Your task to perform on an android device: change the clock style Image 0: 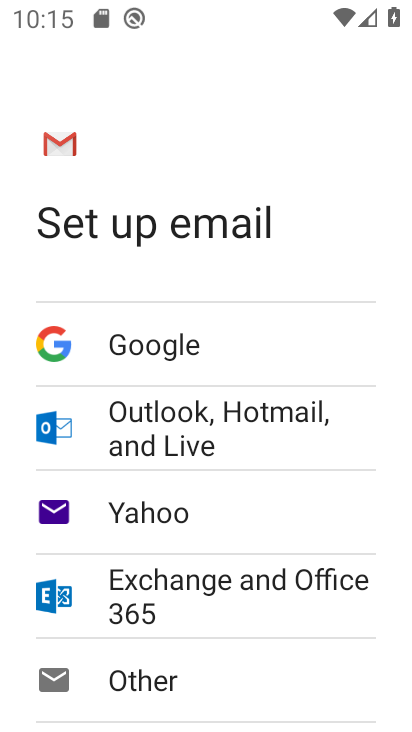
Step 0: press home button
Your task to perform on an android device: change the clock style Image 1: 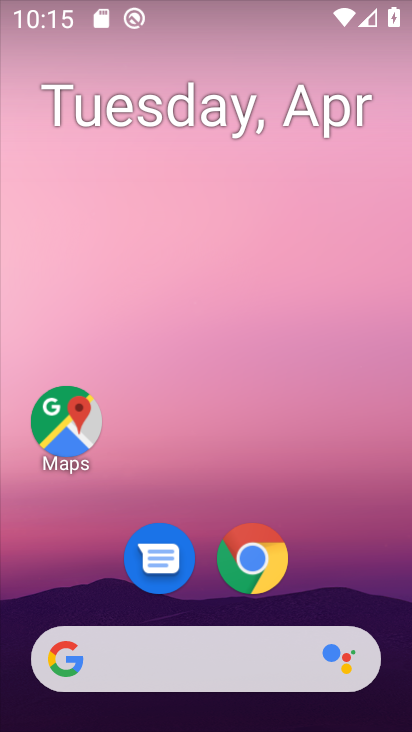
Step 1: drag from (194, 371) to (233, 37)
Your task to perform on an android device: change the clock style Image 2: 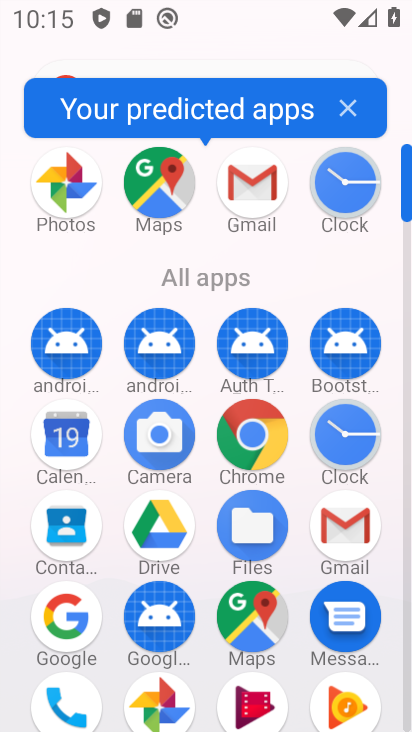
Step 2: click (334, 193)
Your task to perform on an android device: change the clock style Image 3: 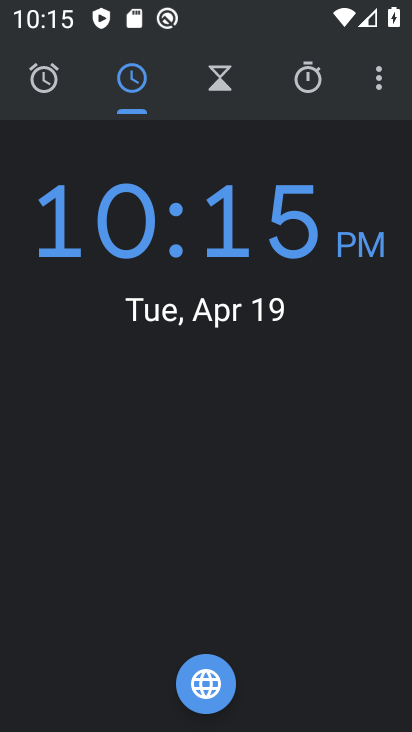
Step 3: click (379, 88)
Your task to perform on an android device: change the clock style Image 4: 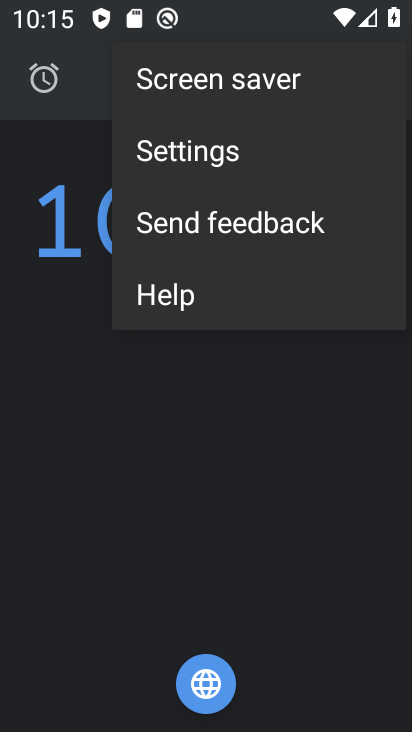
Step 4: click (213, 152)
Your task to perform on an android device: change the clock style Image 5: 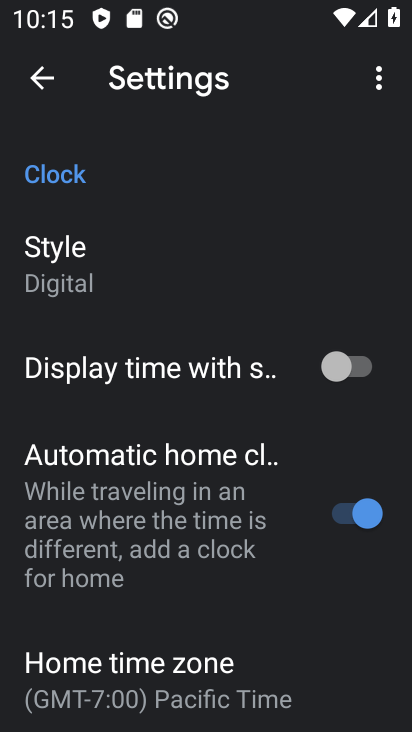
Step 5: click (84, 280)
Your task to perform on an android device: change the clock style Image 6: 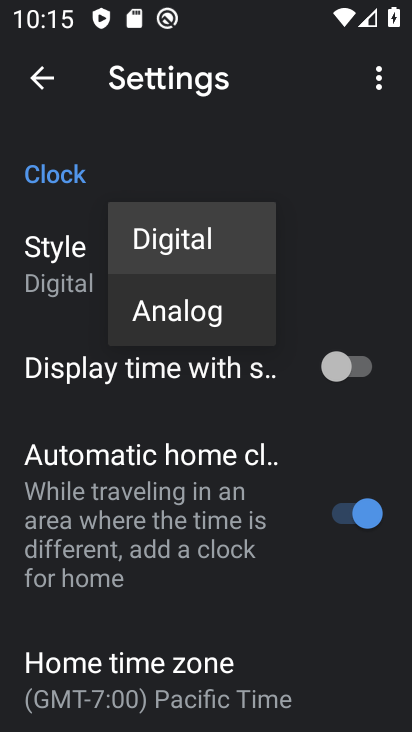
Step 6: click (151, 317)
Your task to perform on an android device: change the clock style Image 7: 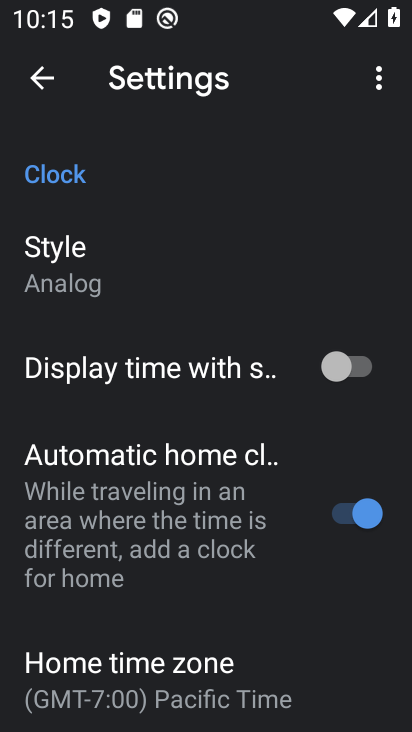
Step 7: task complete